Your task to perform on an android device: check battery use Image 0: 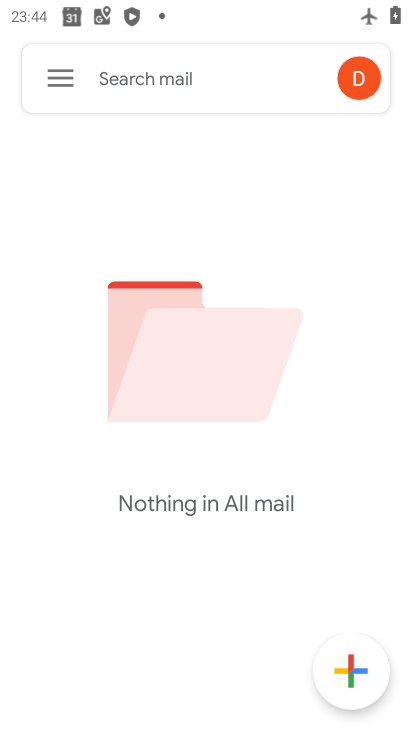
Step 0: press home button
Your task to perform on an android device: check battery use Image 1: 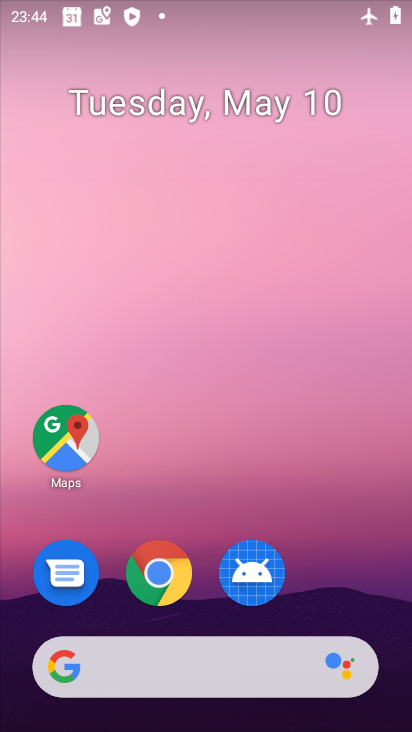
Step 1: drag from (301, 429) to (130, 3)
Your task to perform on an android device: check battery use Image 2: 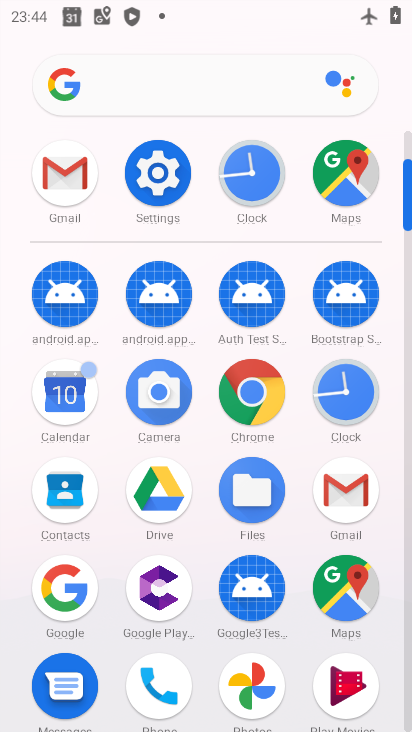
Step 2: click (151, 189)
Your task to perform on an android device: check battery use Image 3: 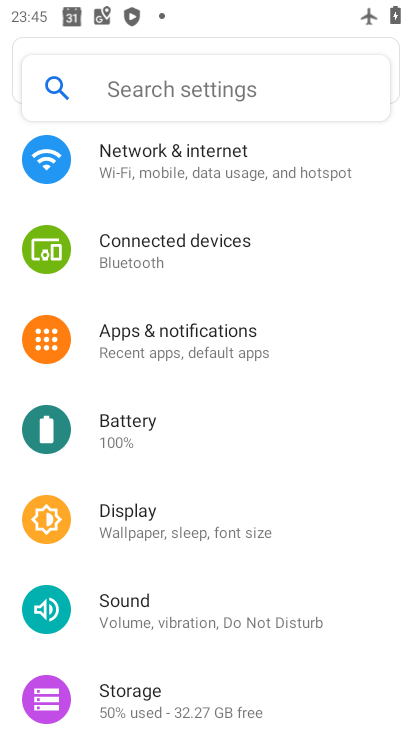
Step 3: click (124, 428)
Your task to perform on an android device: check battery use Image 4: 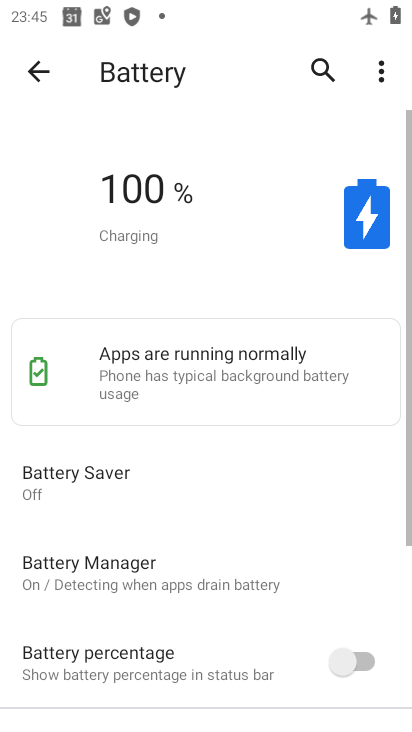
Step 4: task complete